Your task to perform on an android device: Search for sushi restaurants on Maps Image 0: 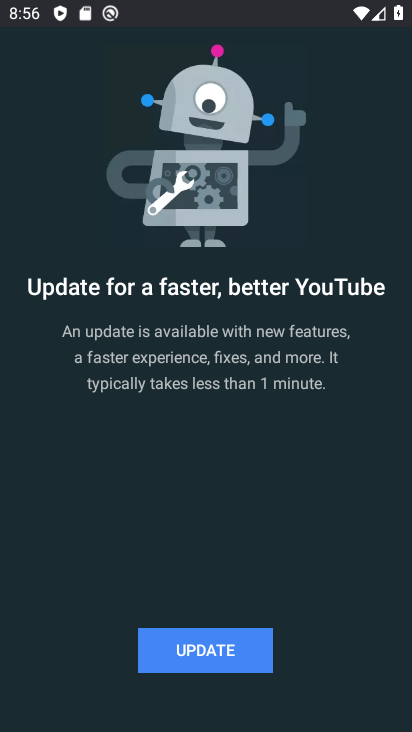
Step 0: press home button
Your task to perform on an android device: Search for sushi restaurants on Maps Image 1: 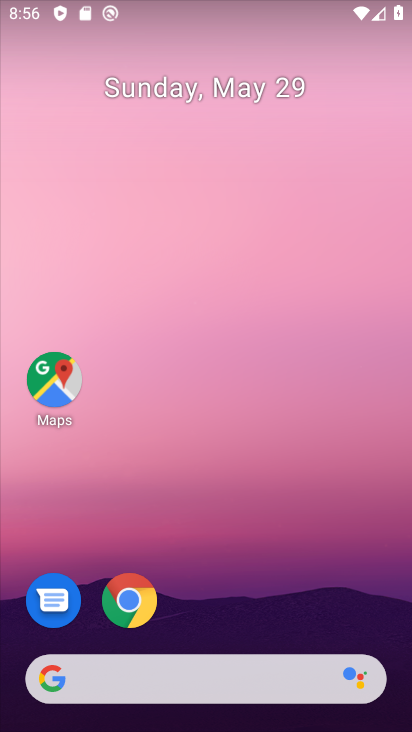
Step 1: drag from (233, 724) to (245, 24)
Your task to perform on an android device: Search for sushi restaurants on Maps Image 2: 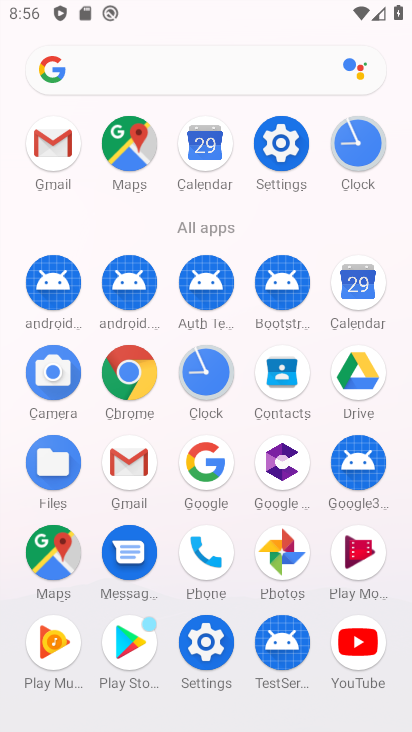
Step 2: click (56, 549)
Your task to perform on an android device: Search for sushi restaurants on Maps Image 3: 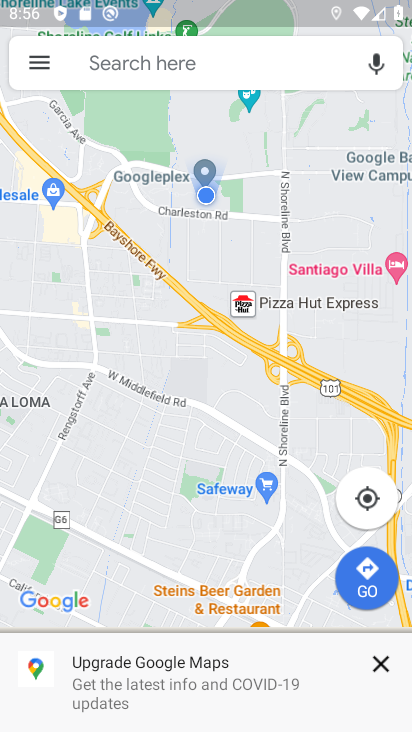
Step 3: click (230, 56)
Your task to perform on an android device: Search for sushi restaurants on Maps Image 4: 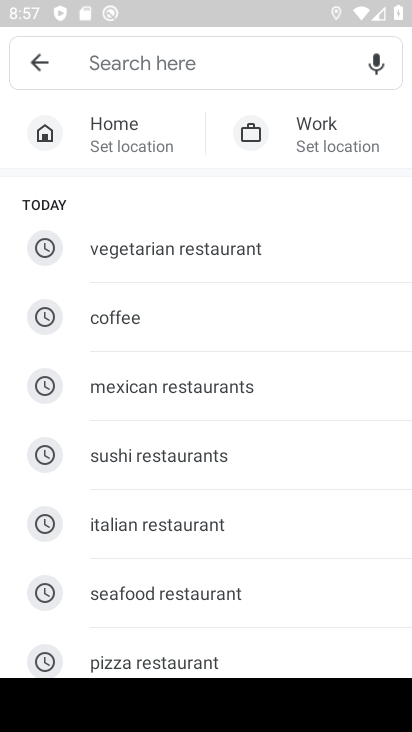
Step 4: type "sushi restaurants"
Your task to perform on an android device: Search for sushi restaurants on Maps Image 5: 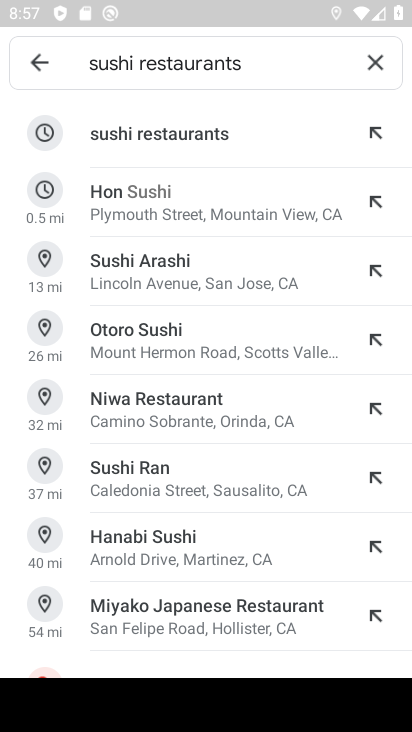
Step 5: click (198, 134)
Your task to perform on an android device: Search for sushi restaurants on Maps Image 6: 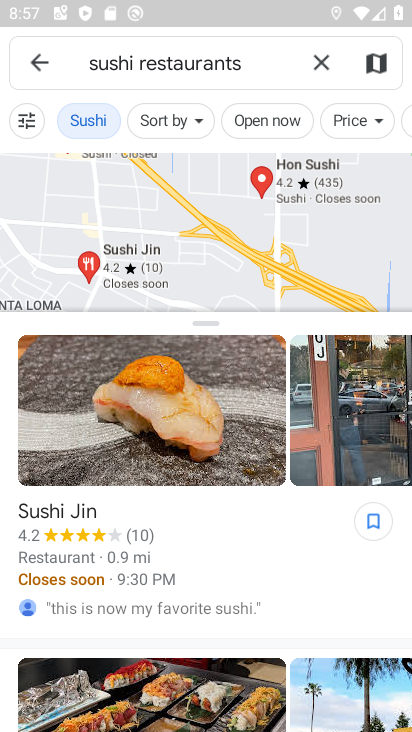
Step 6: task complete